Your task to perform on an android device: Show the shopping cart on amazon. Image 0: 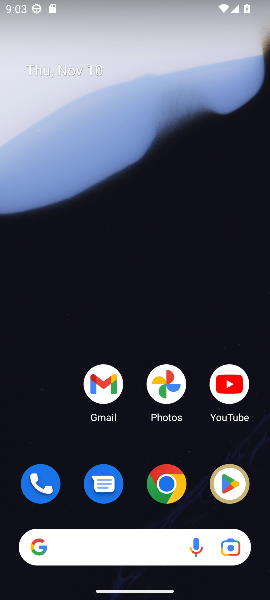
Step 0: click (167, 486)
Your task to perform on an android device: Show the shopping cart on amazon. Image 1: 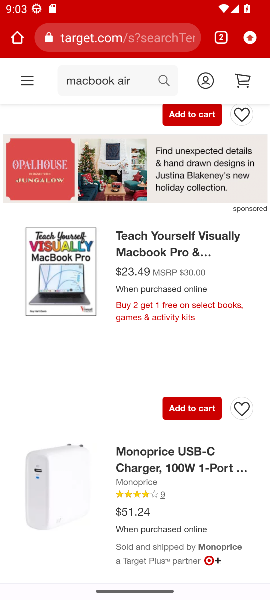
Step 1: click (115, 44)
Your task to perform on an android device: Show the shopping cart on amazon. Image 2: 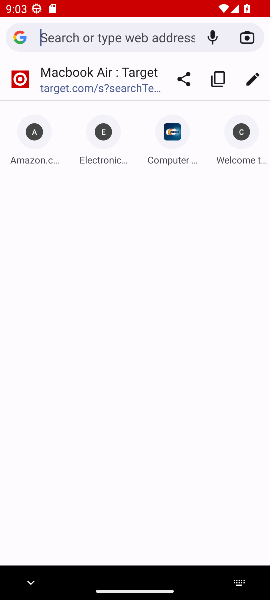
Step 2: click (26, 156)
Your task to perform on an android device: Show the shopping cart on amazon. Image 3: 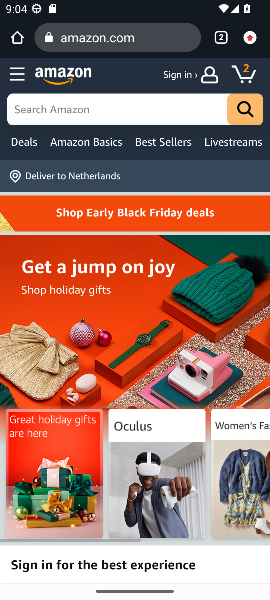
Step 3: click (246, 80)
Your task to perform on an android device: Show the shopping cart on amazon. Image 4: 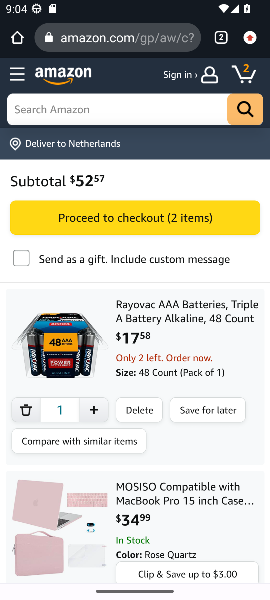
Step 4: task complete